Your task to perform on an android device: open app "YouTube Kids" (install if not already installed), go to login, and select forgot password Image 0: 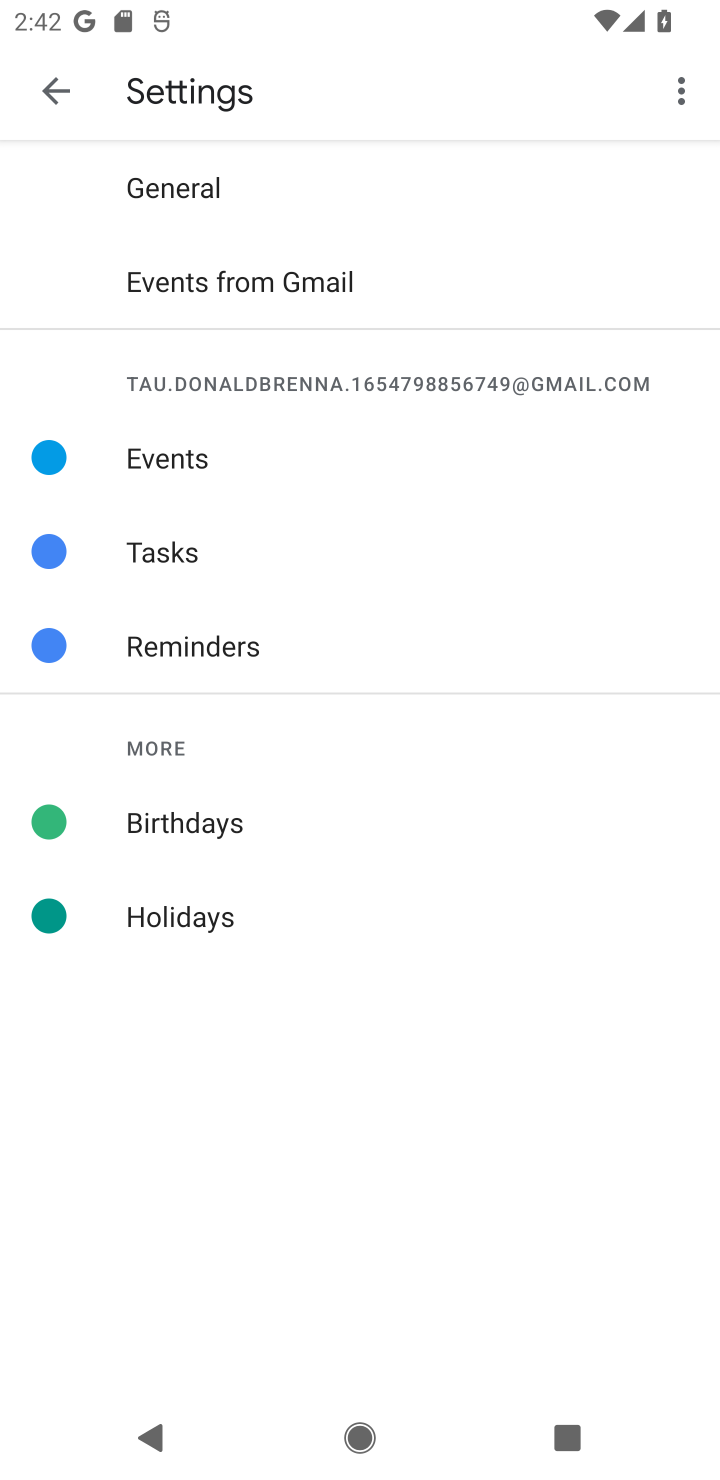
Step 0: press home button
Your task to perform on an android device: open app "YouTube Kids" (install if not already installed), go to login, and select forgot password Image 1: 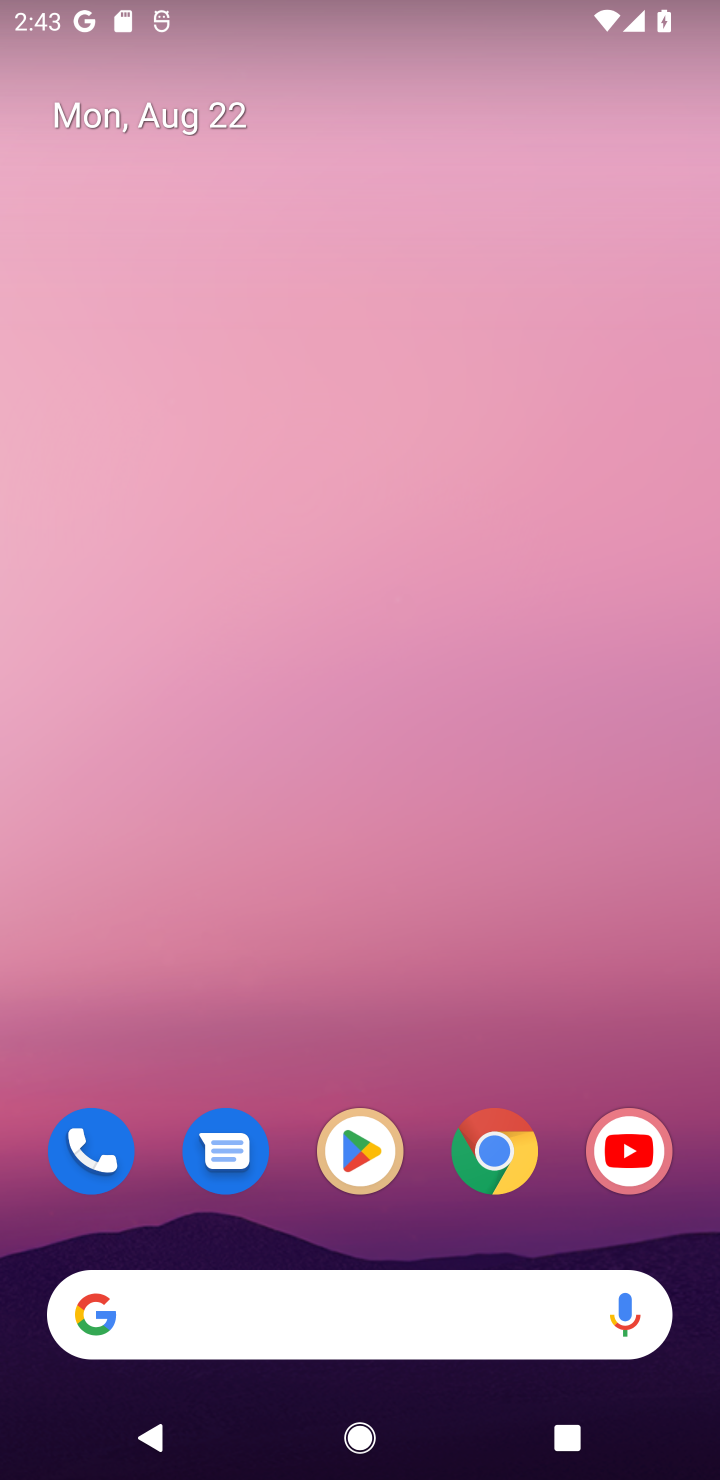
Step 1: click (348, 1149)
Your task to perform on an android device: open app "YouTube Kids" (install if not already installed), go to login, and select forgot password Image 2: 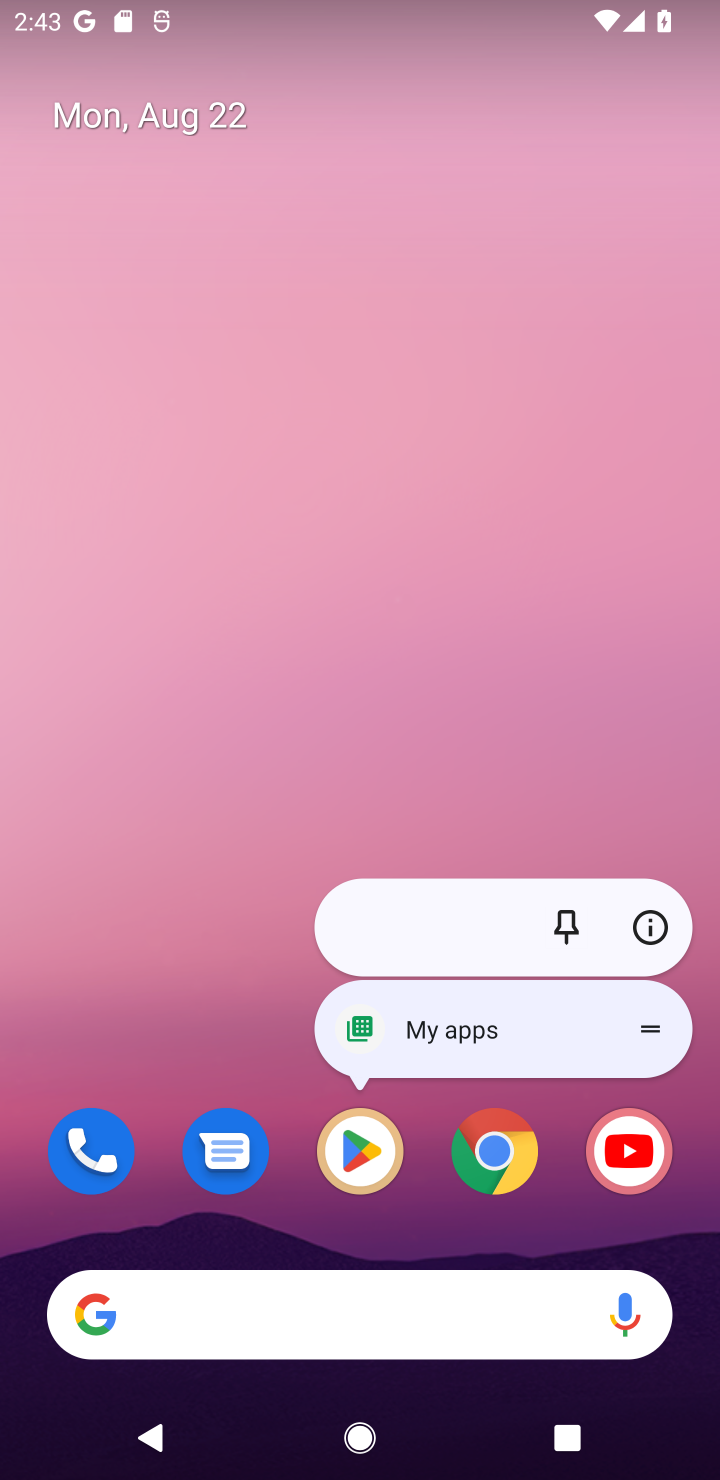
Step 2: click (354, 1151)
Your task to perform on an android device: open app "YouTube Kids" (install if not already installed), go to login, and select forgot password Image 3: 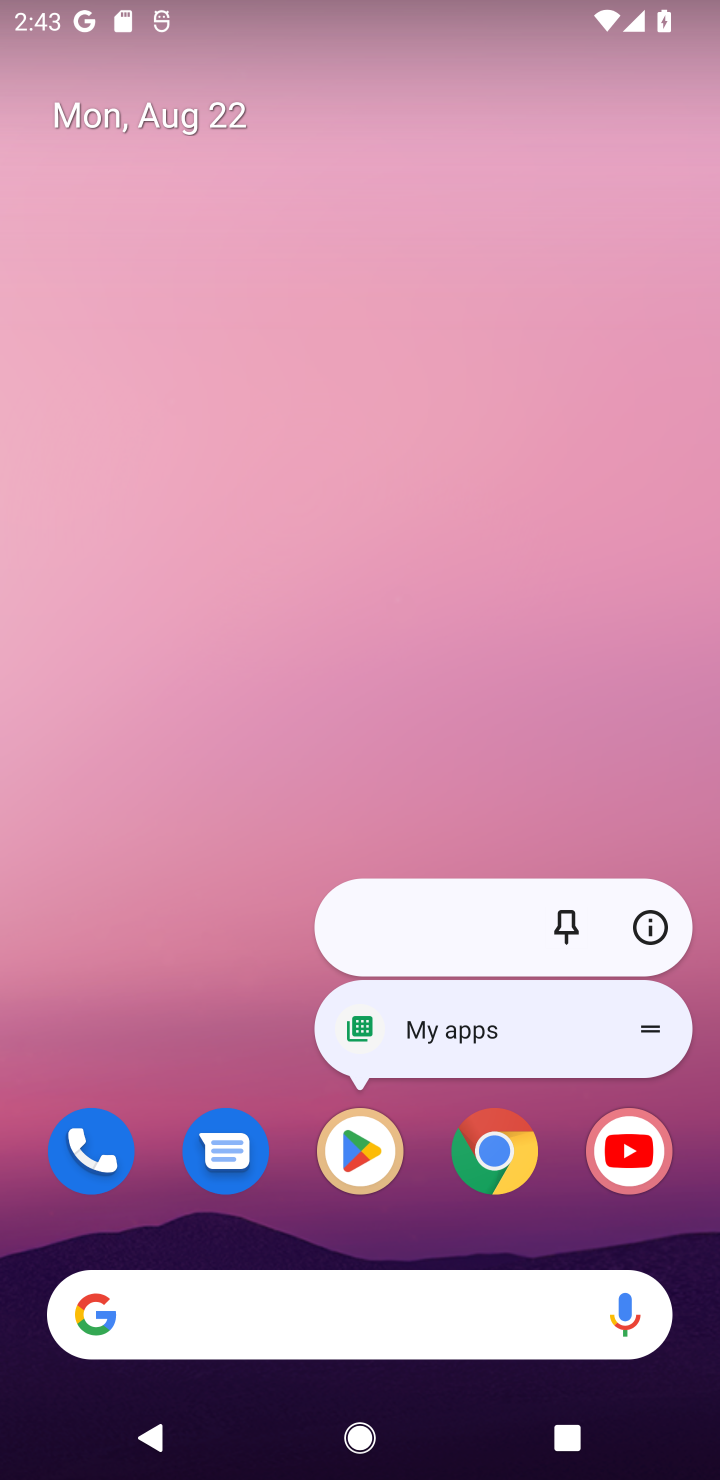
Step 3: click (351, 1135)
Your task to perform on an android device: open app "YouTube Kids" (install if not already installed), go to login, and select forgot password Image 4: 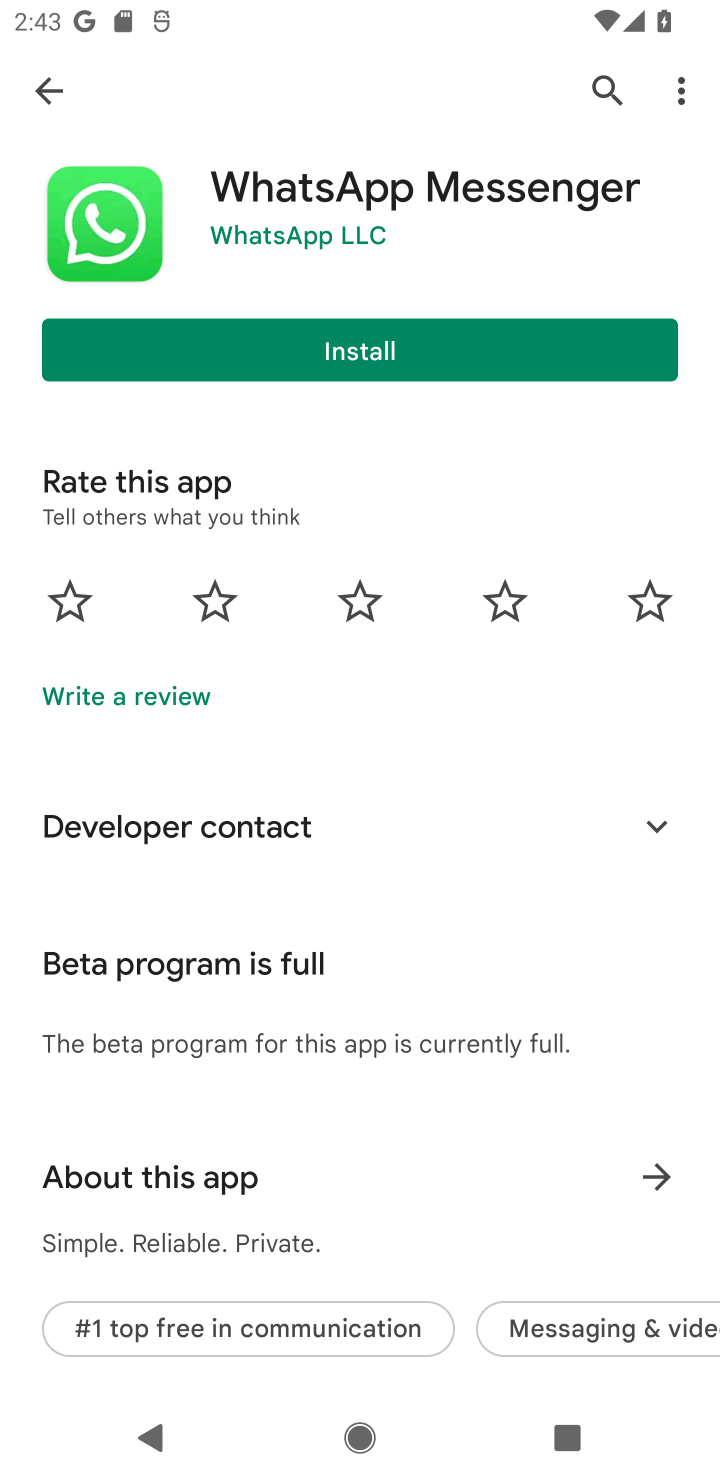
Step 4: click (611, 88)
Your task to perform on an android device: open app "YouTube Kids" (install if not already installed), go to login, and select forgot password Image 5: 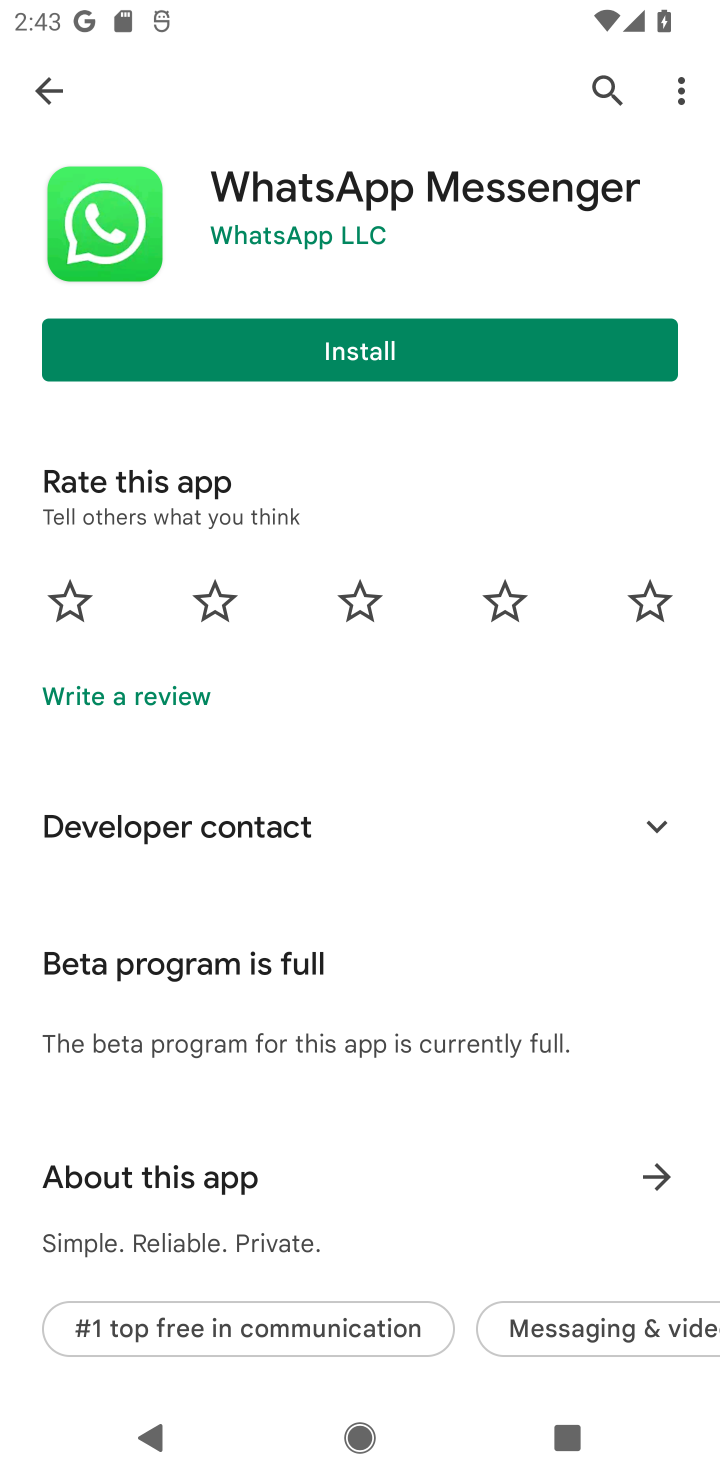
Step 5: click (612, 83)
Your task to perform on an android device: open app "YouTube Kids" (install if not already installed), go to login, and select forgot password Image 6: 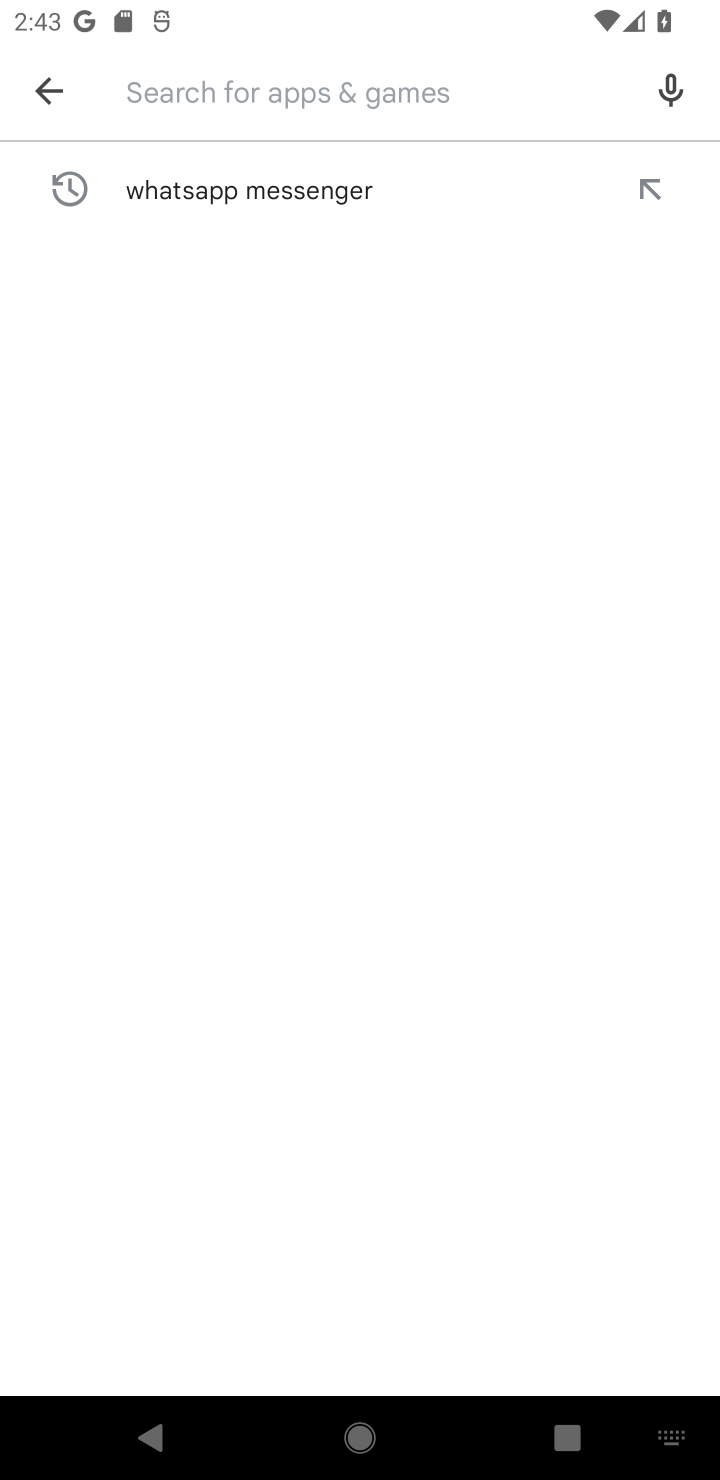
Step 6: type "YouTube Kids"
Your task to perform on an android device: open app "YouTube Kids" (install if not already installed), go to login, and select forgot password Image 7: 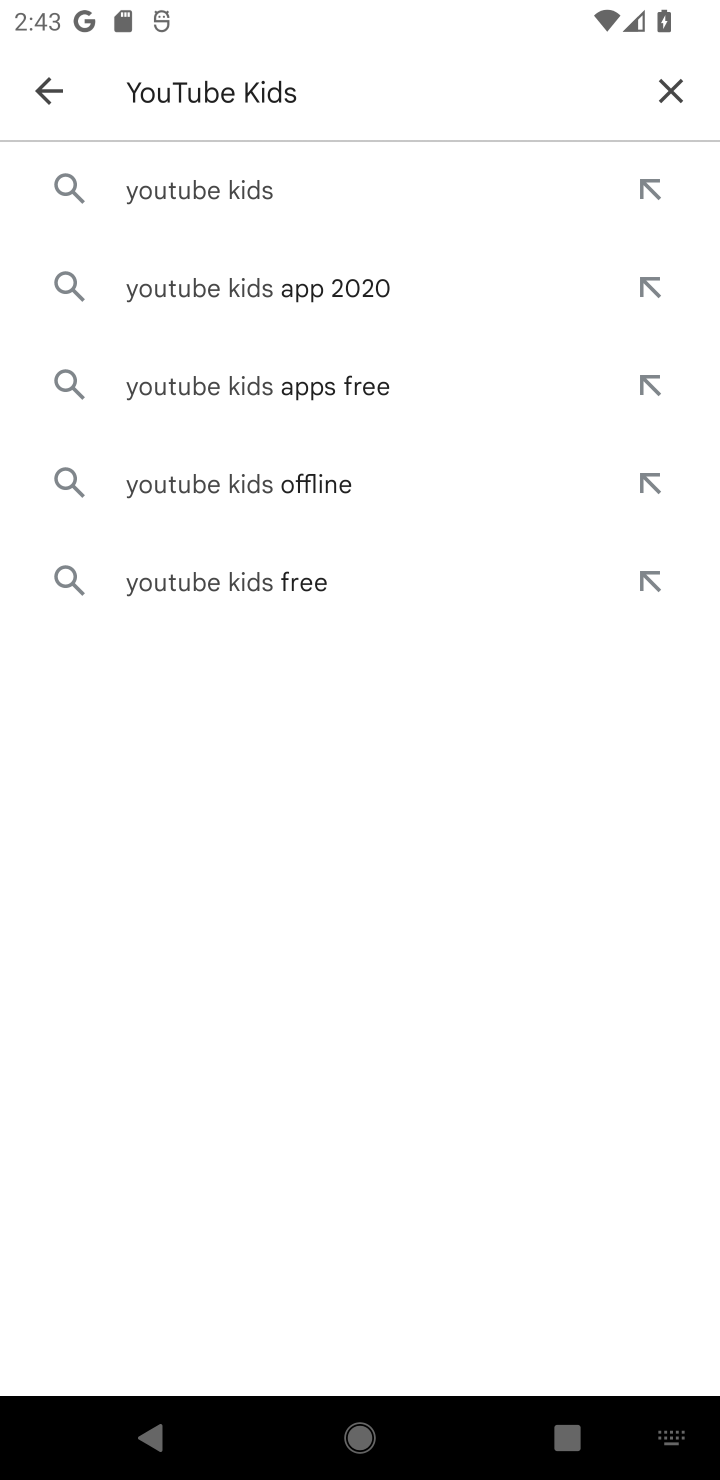
Step 7: click (246, 194)
Your task to perform on an android device: open app "YouTube Kids" (install if not already installed), go to login, and select forgot password Image 8: 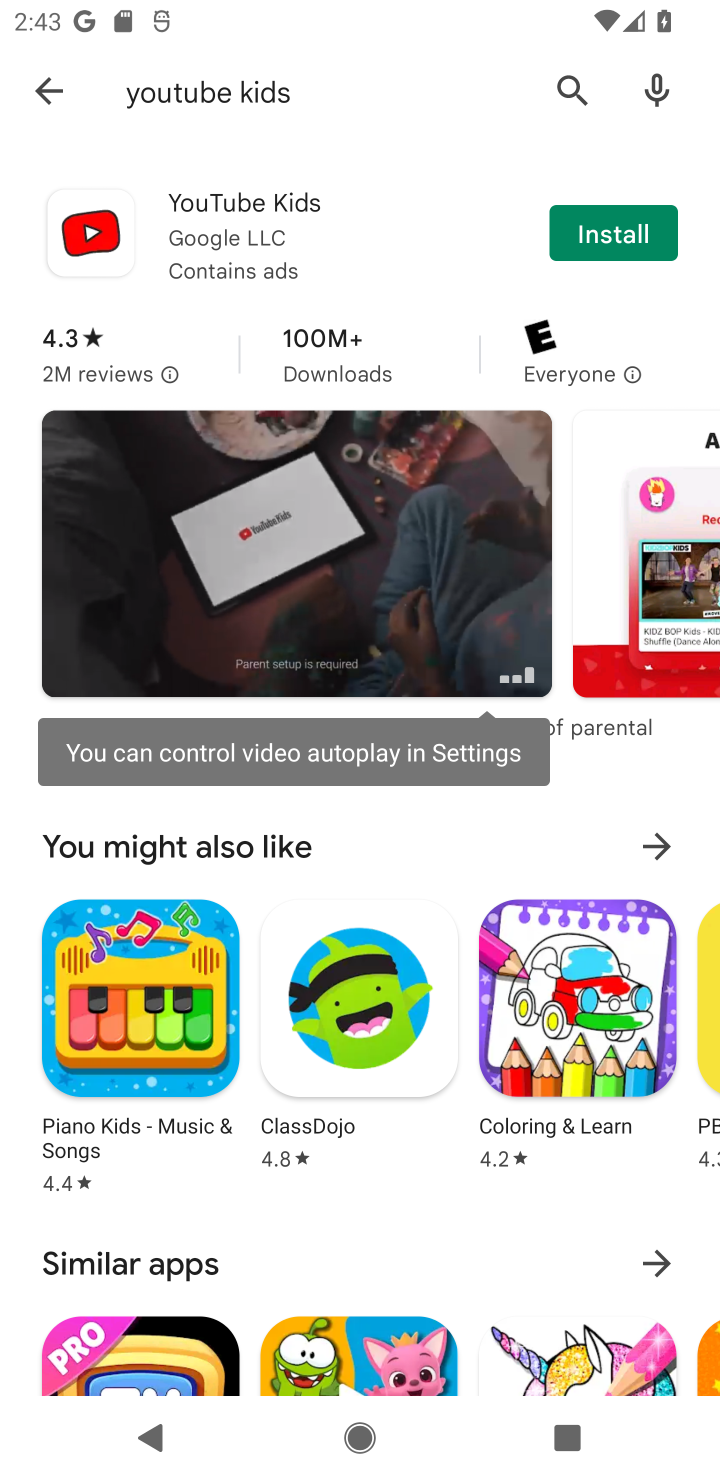
Step 8: click (659, 237)
Your task to perform on an android device: open app "YouTube Kids" (install if not already installed), go to login, and select forgot password Image 9: 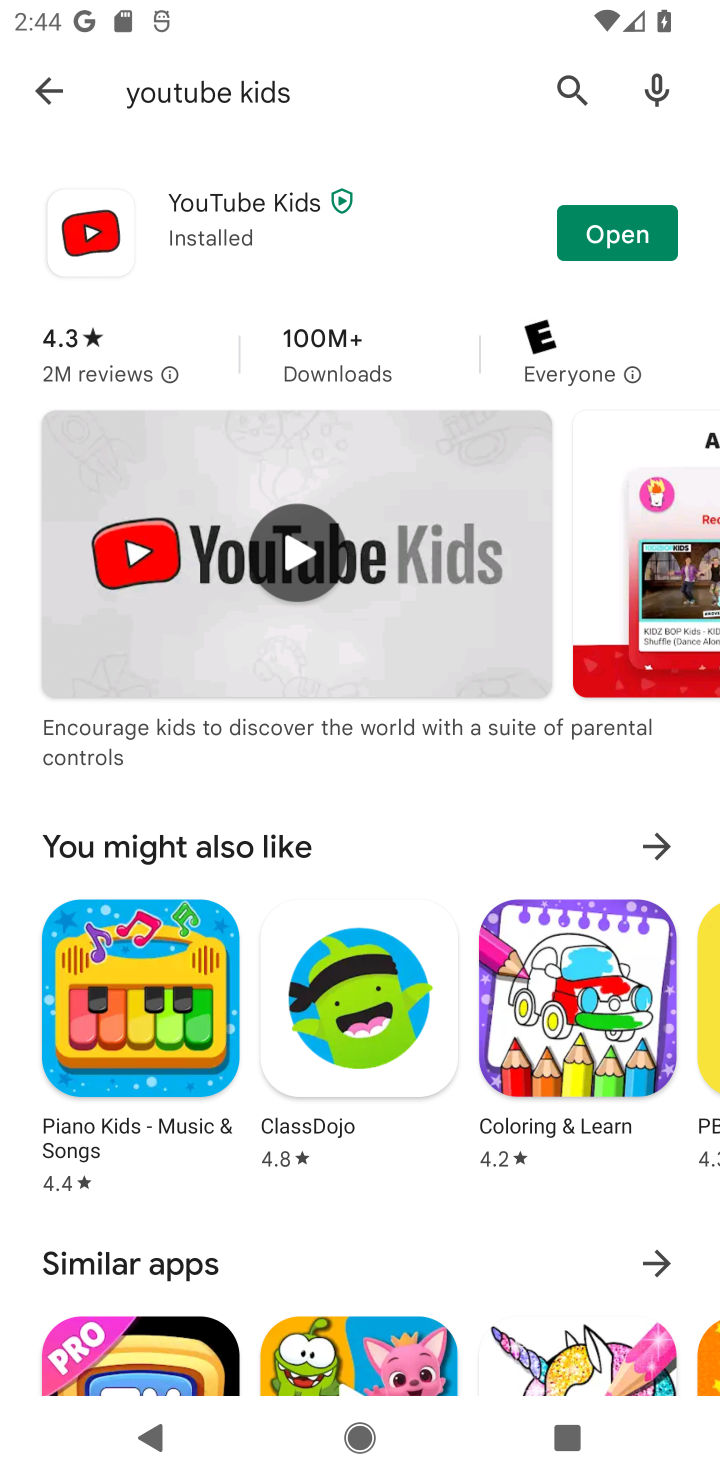
Step 9: click (604, 233)
Your task to perform on an android device: open app "YouTube Kids" (install if not already installed), go to login, and select forgot password Image 10: 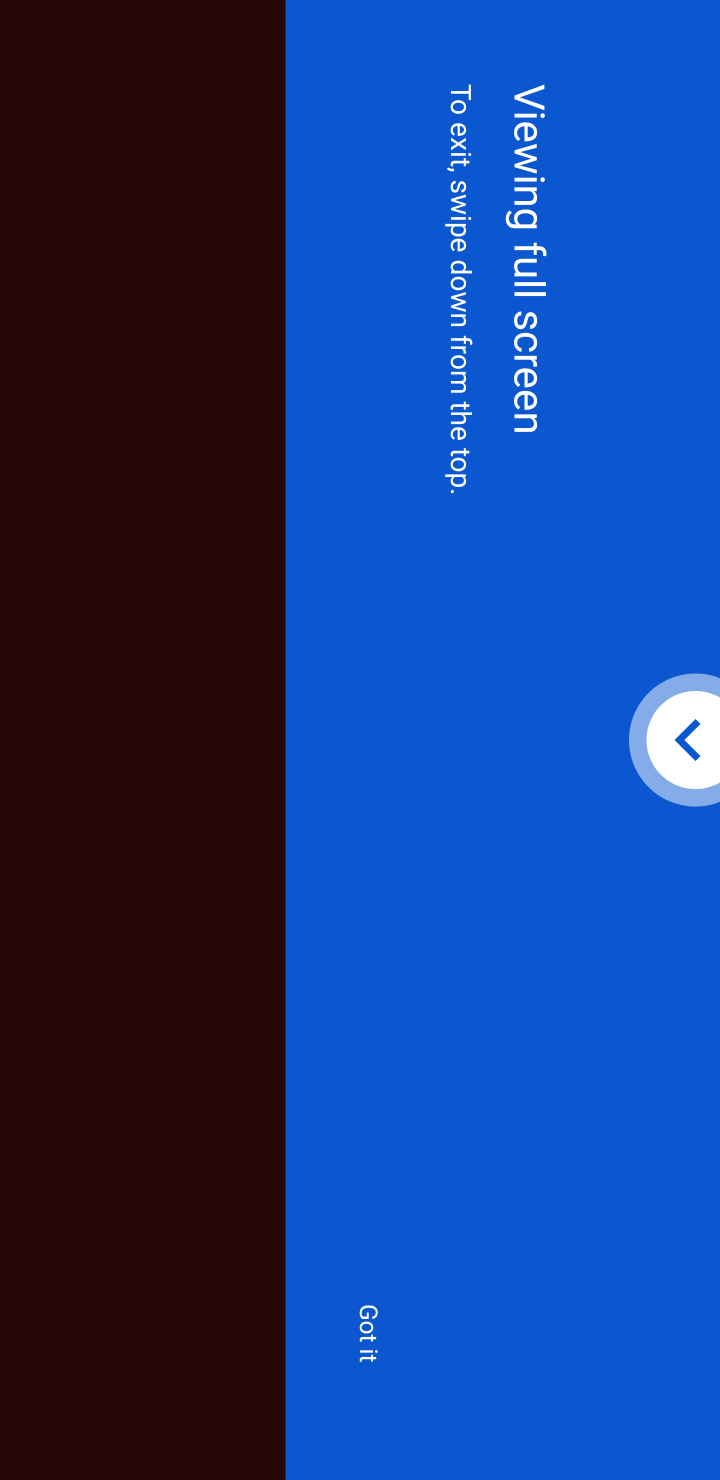
Step 10: click (362, 1332)
Your task to perform on an android device: open app "YouTube Kids" (install if not already installed), go to login, and select forgot password Image 11: 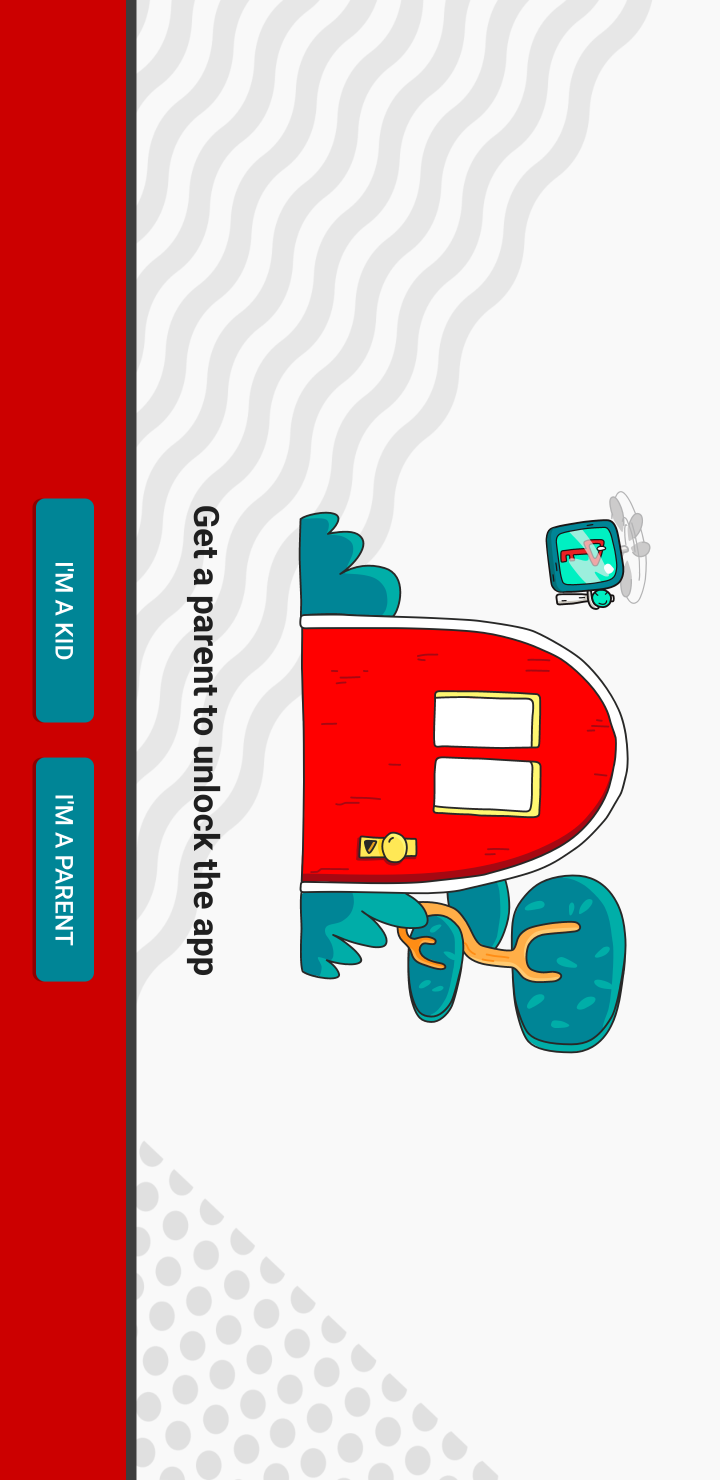
Step 11: task complete